Your task to perform on an android device: How much does a 3 bedroom apartment rent for in New York? Image 0: 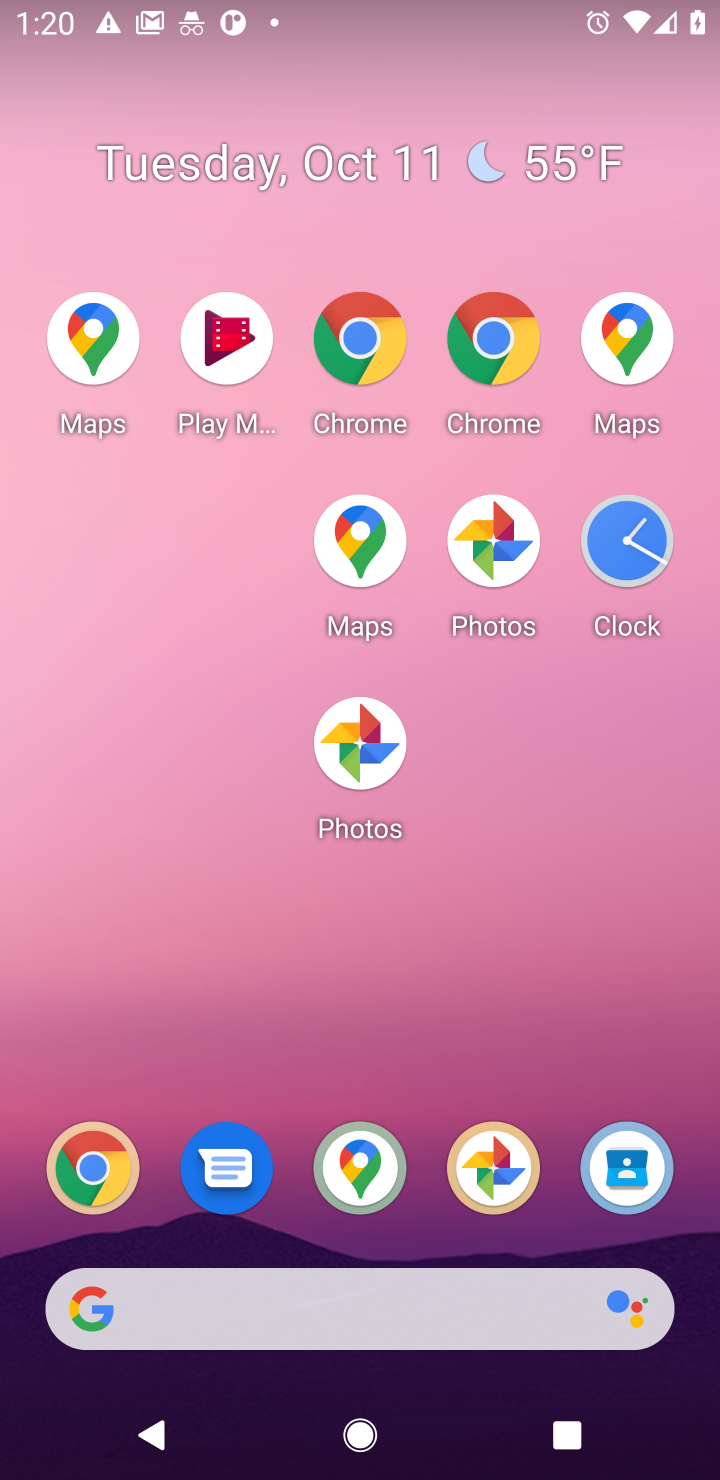
Step 0: click (604, 918)
Your task to perform on an android device: How much does a 3 bedroom apartment rent for in New York? Image 1: 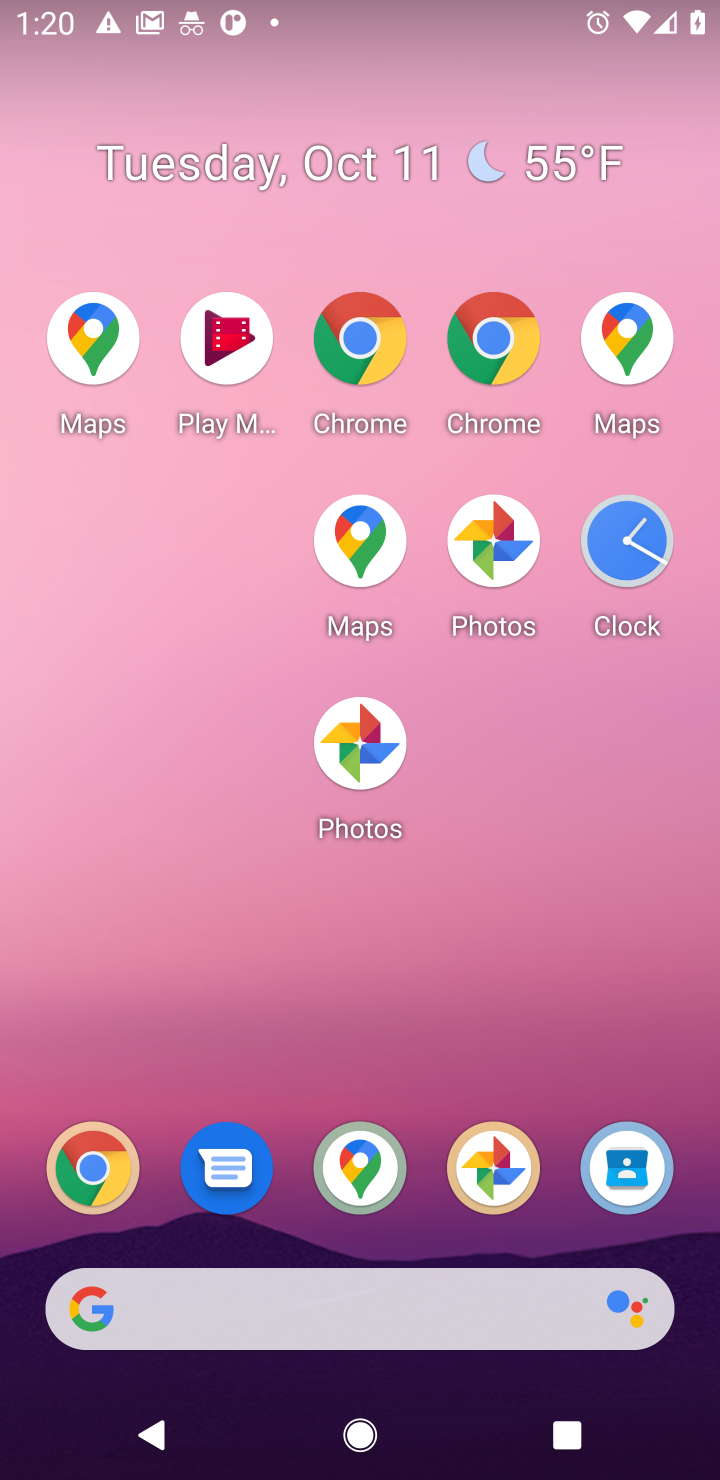
Step 1: drag from (510, 1012) to (556, 261)
Your task to perform on an android device: How much does a 3 bedroom apartment rent for in New York? Image 2: 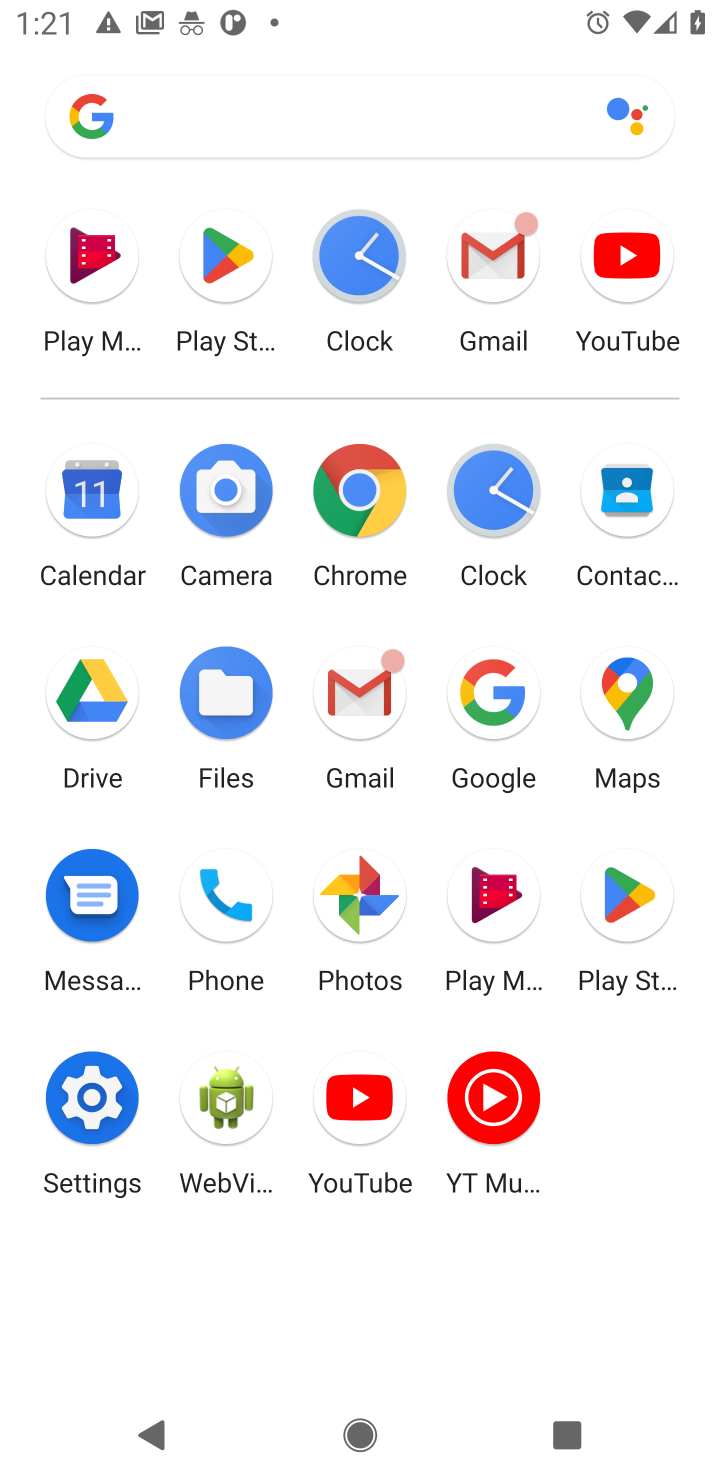
Step 2: click (492, 723)
Your task to perform on an android device: How much does a 3 bedroom apartment rent for in New York? Image 3: 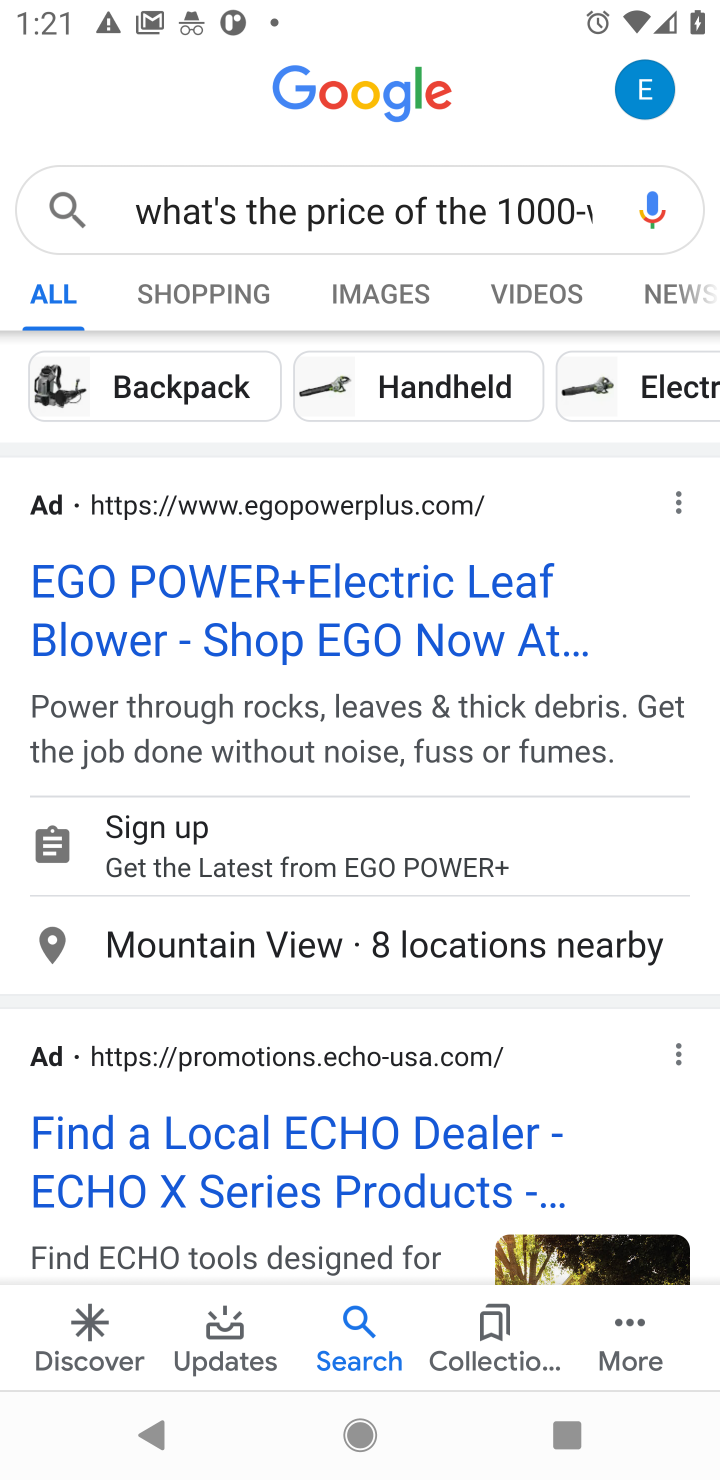
Step 3: click (424, 212)
Your task to perform on an android device: How much does a 3 bedroom apartment rent for in New York? Image 4: 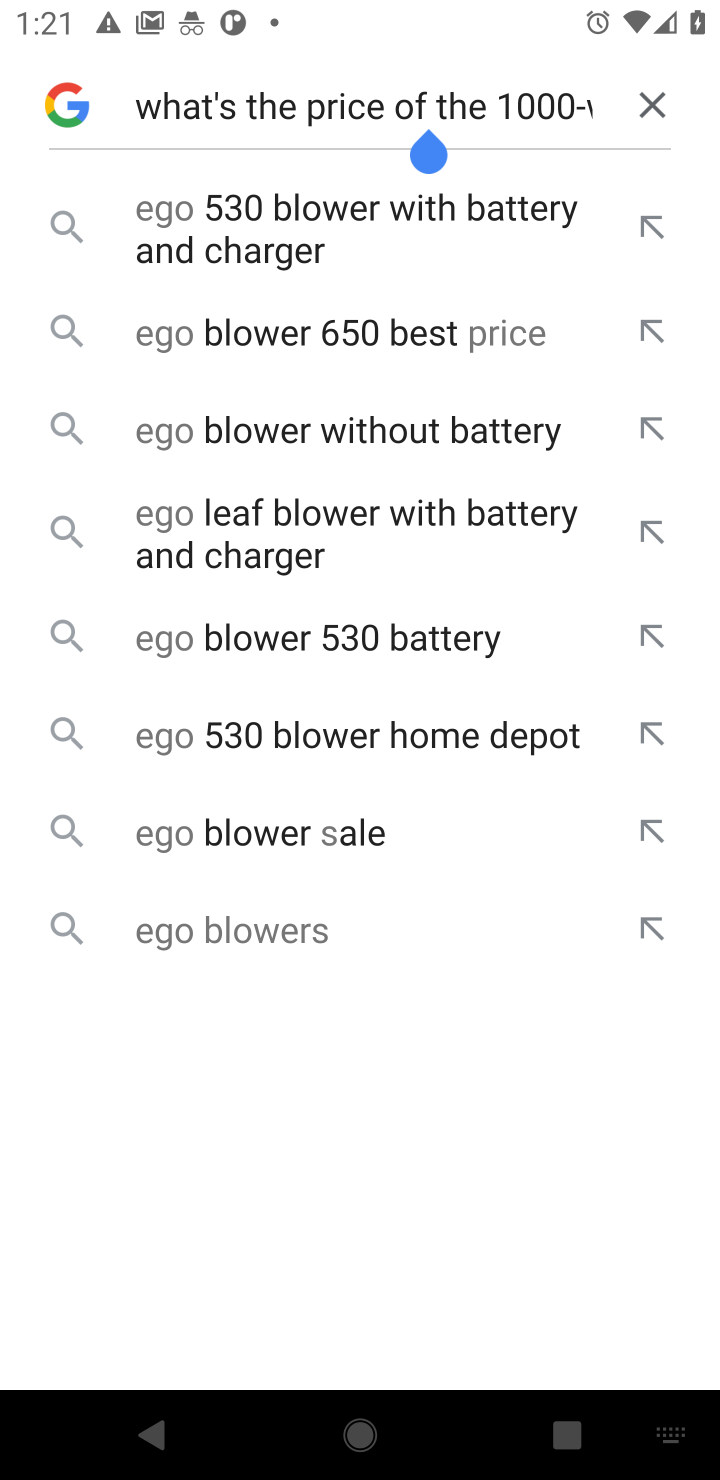
Step 4: click (655, 104)
Your task to perform on an android device: How much does a 3 bedroom apartment rent for in New York? Image 5: 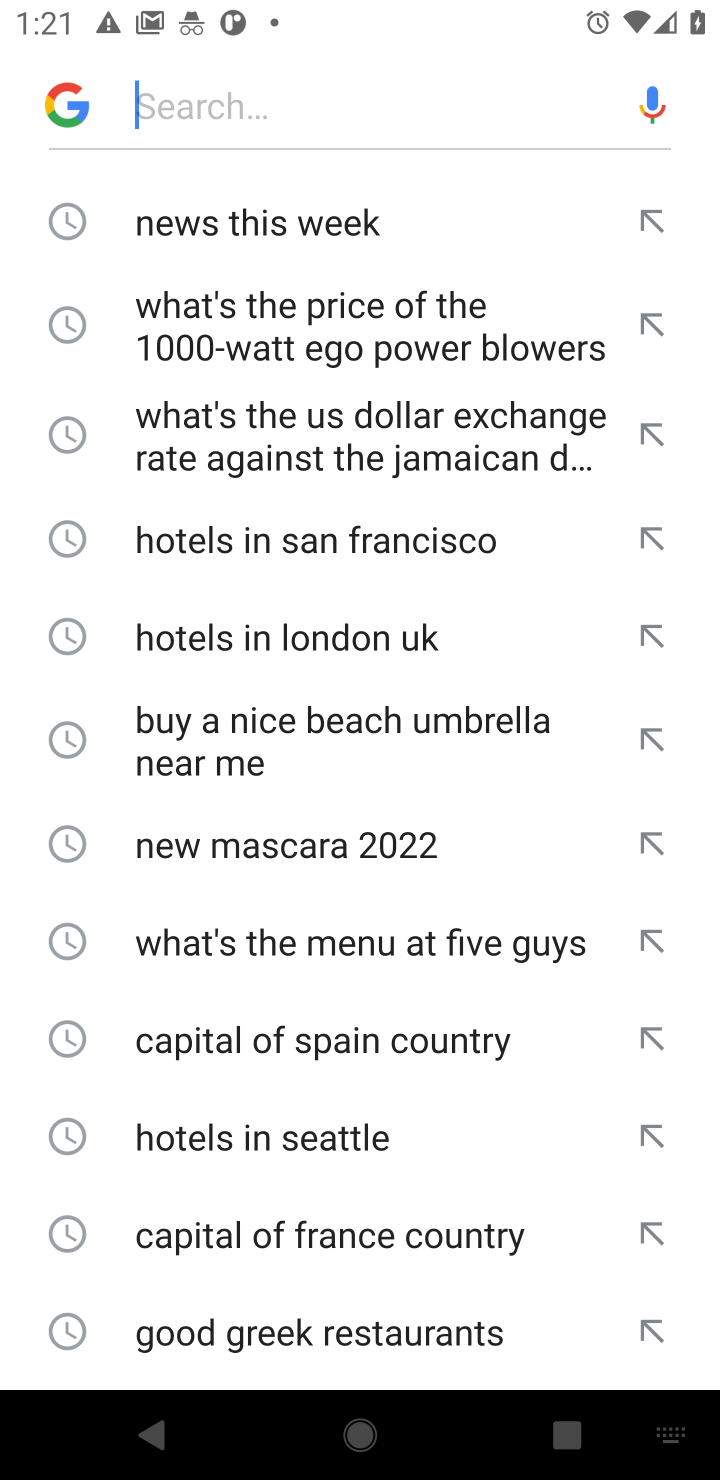
Step 5: type "How much does a 3 bedroom apartment rent for in New York?"
Your task to perform on an android device: How much does a 3 bedroom apartment rent for in New York? Image 6: 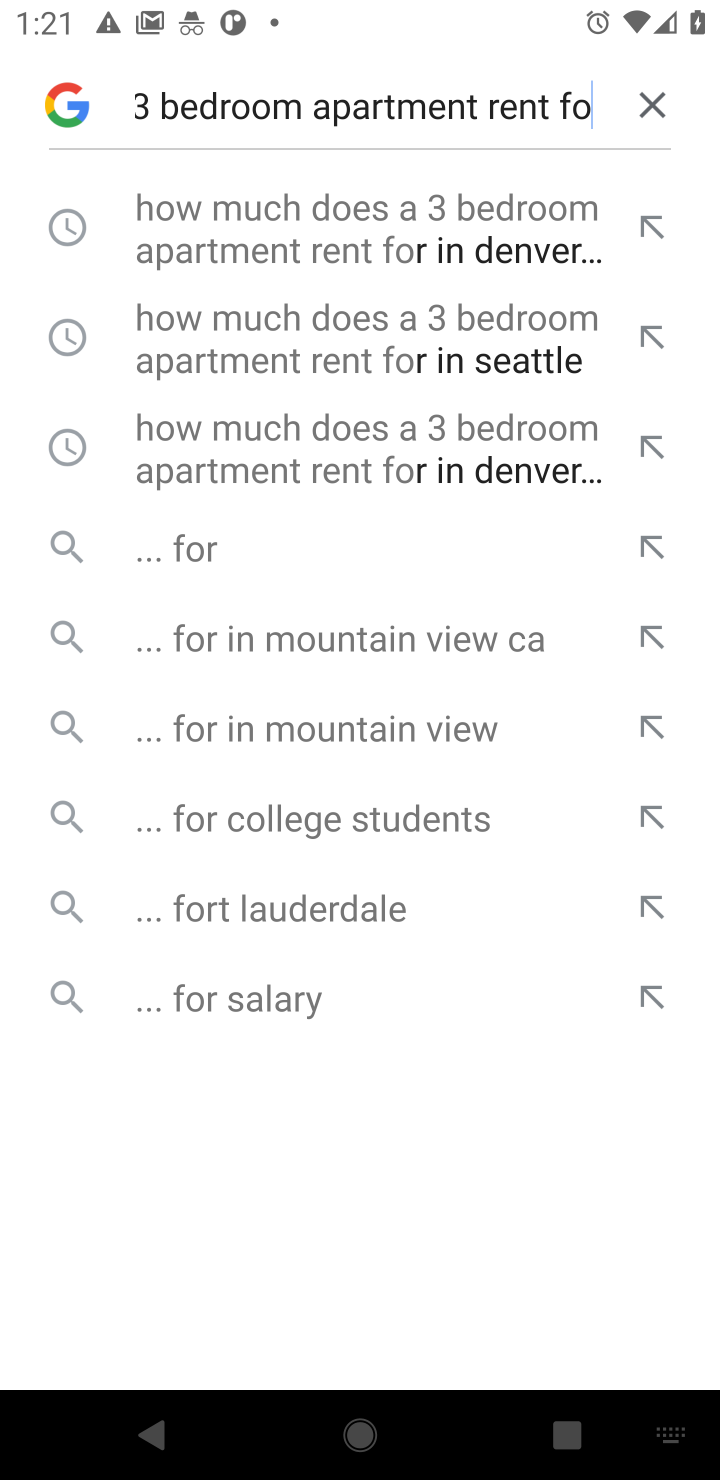
Step 6: click (430, 234)
Your task to perform on an android device: How much does a 3 bedroom apartment rent for in New York? Image 7: 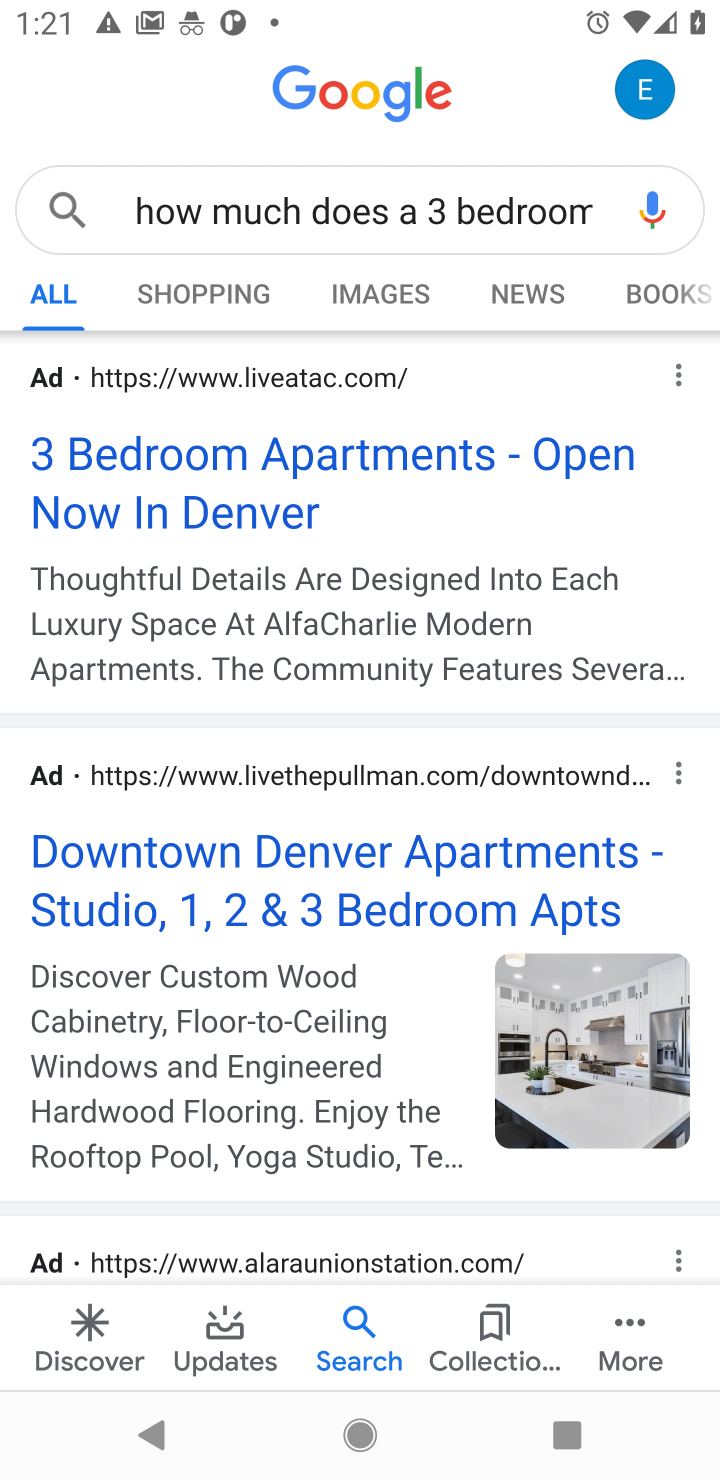
Step 7: task complete